Your task to perform on an android device: uninstall "Google Duo" Image 0: 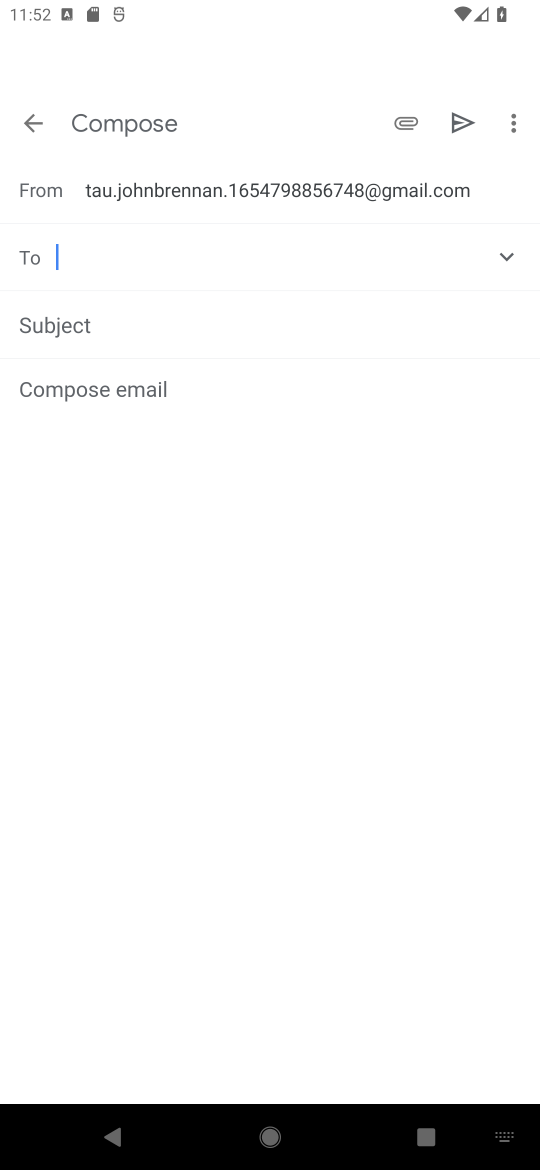
Step 0: press home button
Your task to perform on an android device: uninstall "Google Duo" Image 1: 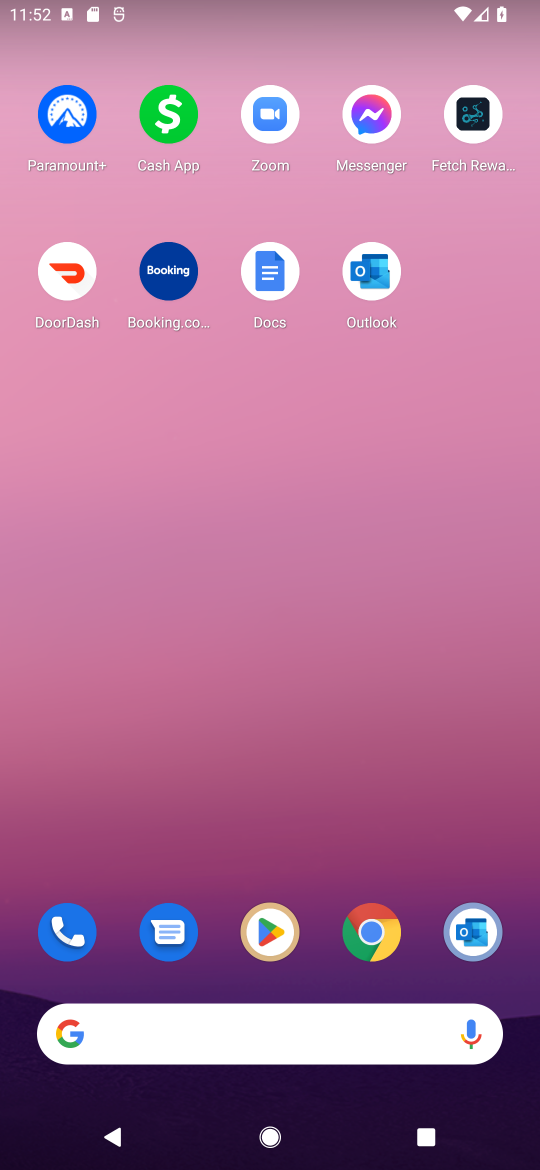
Step 1: click (259, 929)
Your task to perform on an android device: uninstall "Google Duo" Image 2: 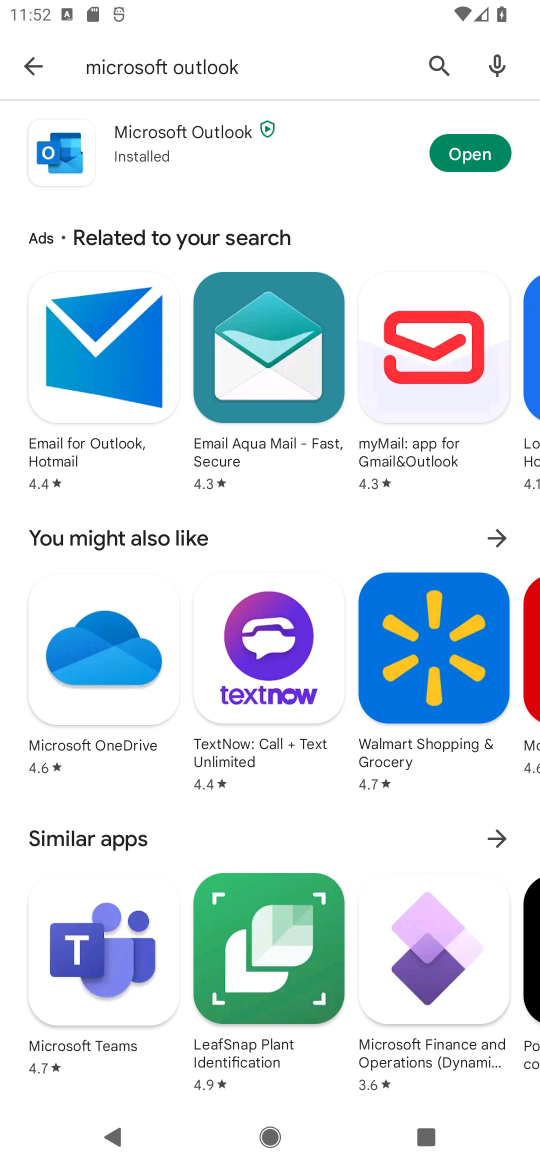
Step 2: click (449, 55)
Your task to perform on an android device: uninstall "Google Duo" Image 3: 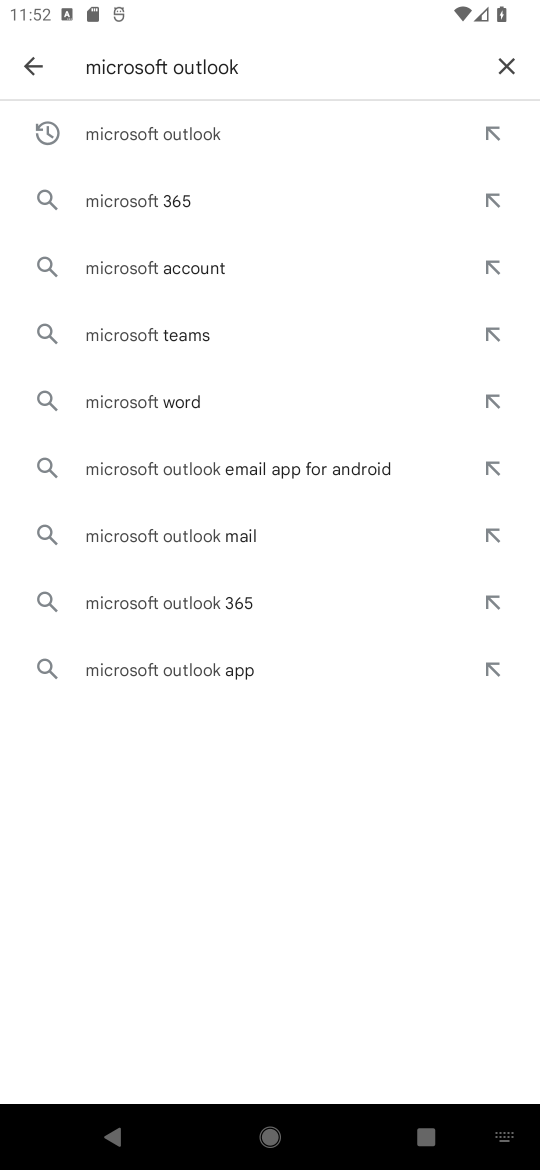
Step 3: click (489, 60)
Your task to perform on an android device: uninstall "Google Duo" Image 4: 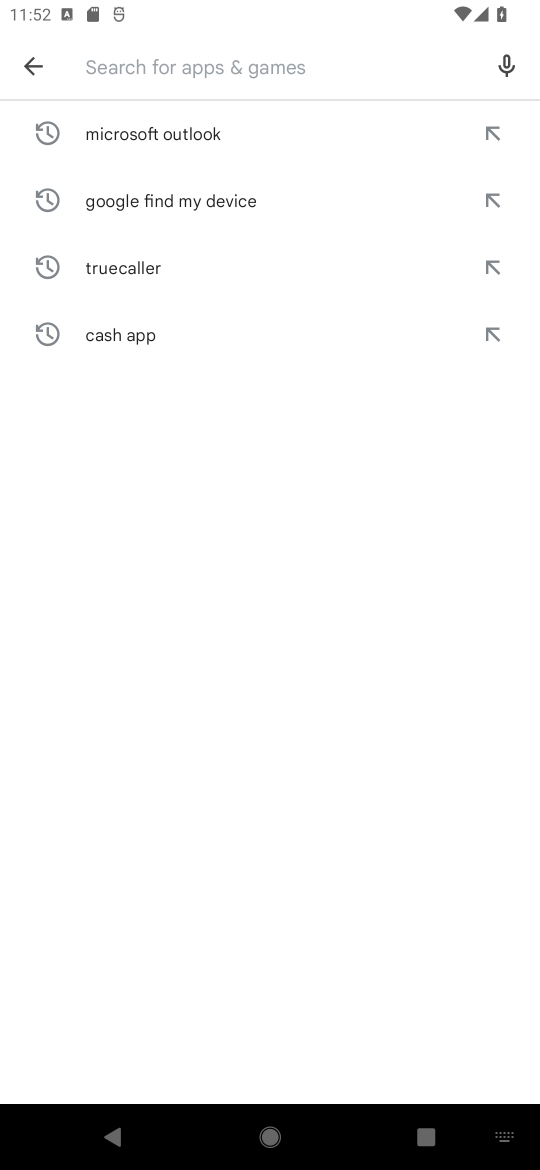
Step 4: click (174, 66)
Your task to perform on an android device: uninstall "Google Duo" Image 5: 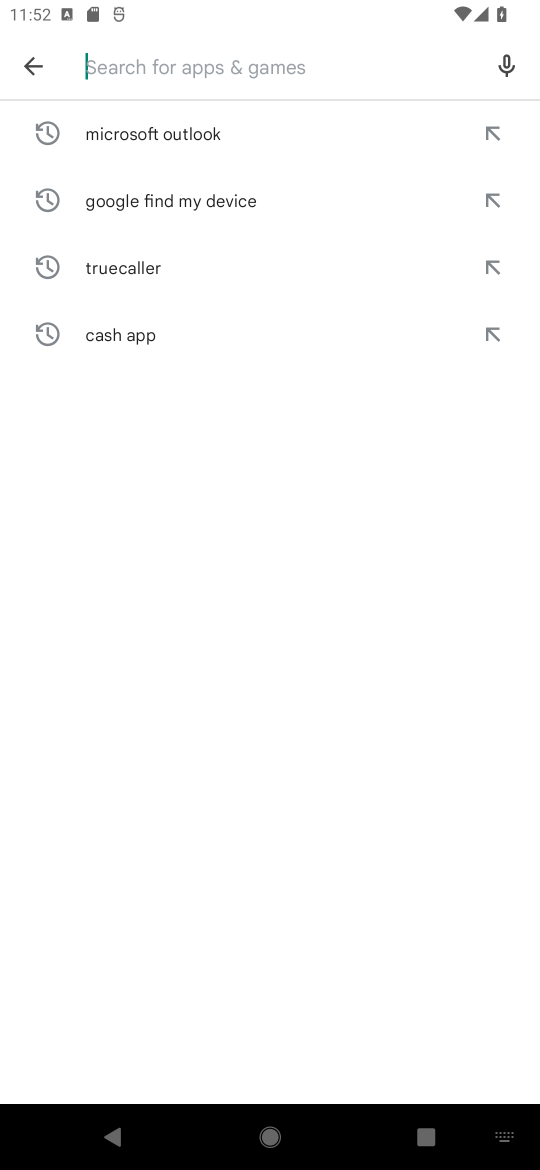
Step 5: type "Google Duo"
Your task to perform on an android device: uninstall "Google Duo" Image 6: 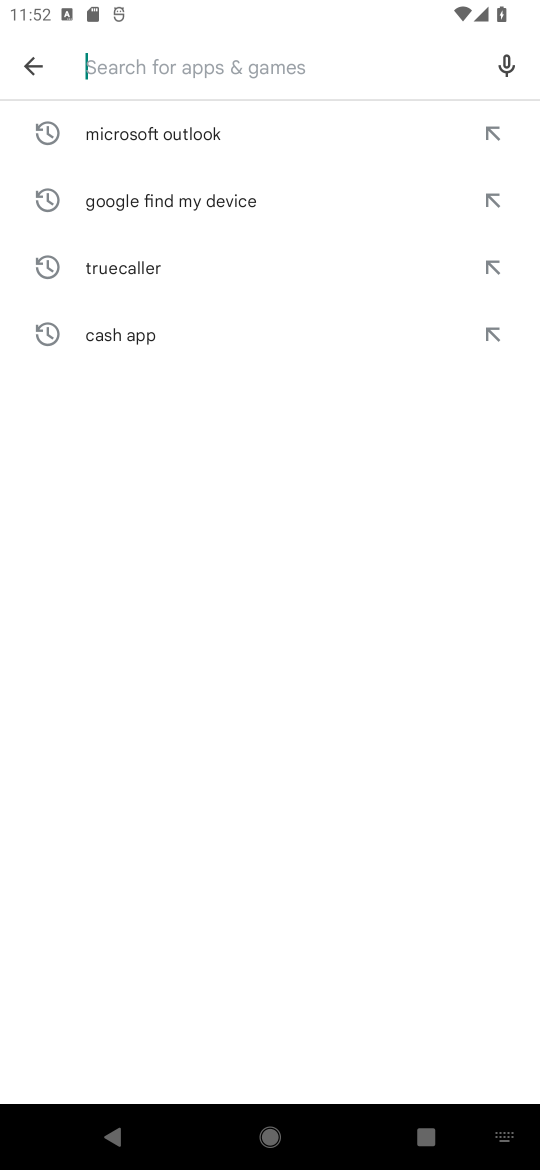
Step 6: click (286, 713)
Your task to perform on an android device: uninstall "Google Duo" Image 7: 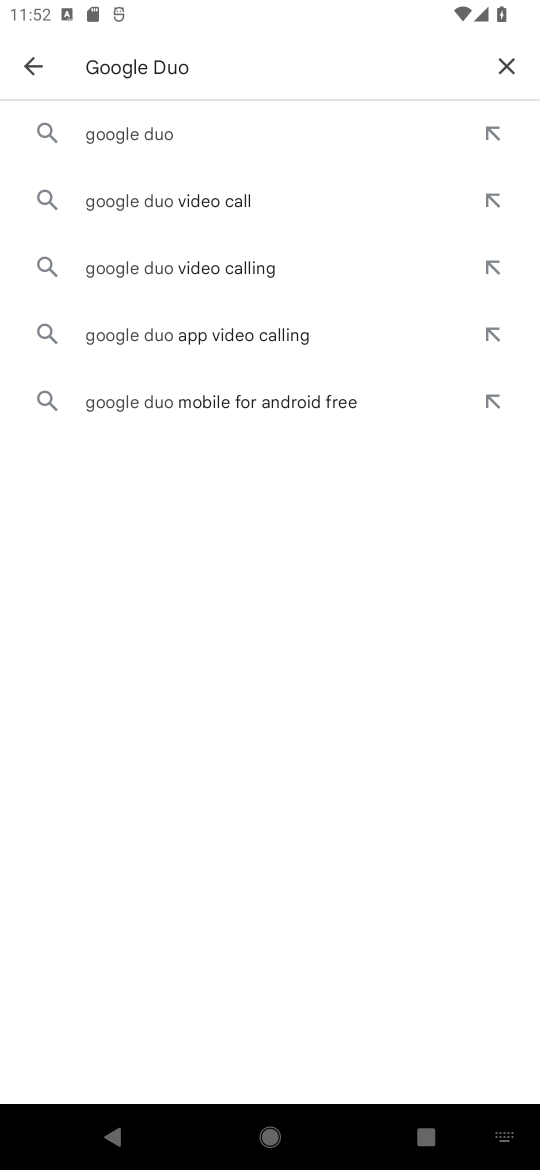
Step 7: click (142, 127)
Your task to perform on an android device: uninstall "Google Duo" Image 8: 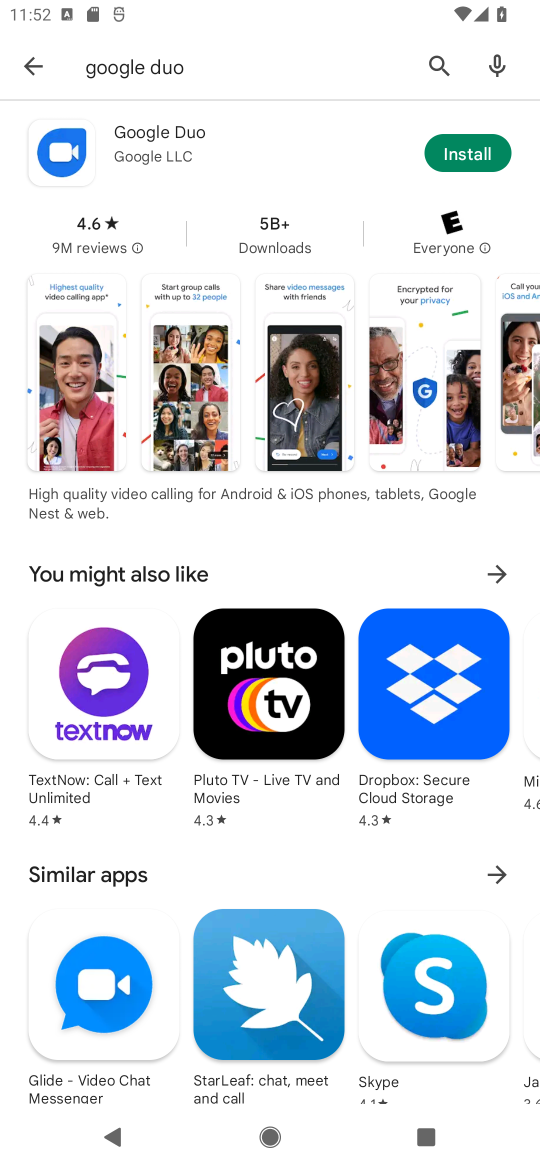
Step 8: click (132, 136)
Your task to perform on an android device: uninstall "Google Duo" Image 9: 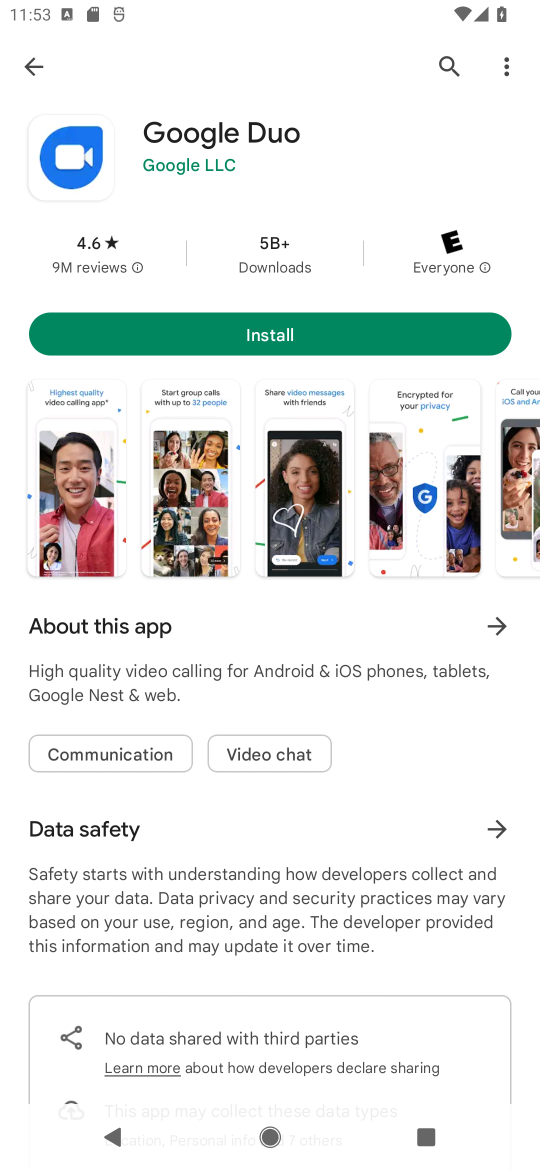
Step 9: task complete